Your task to perform on an android device: search for starred emails in the gmail app Image 0: 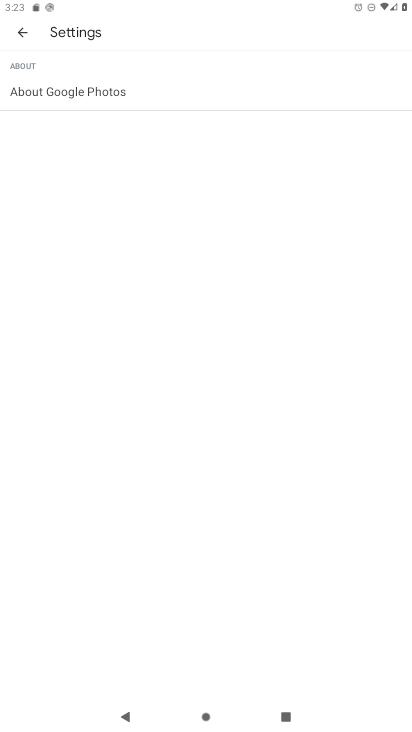
Step 0: press home button
Your task to perform on an android device: search for starred emails in the gmail app Image 1: 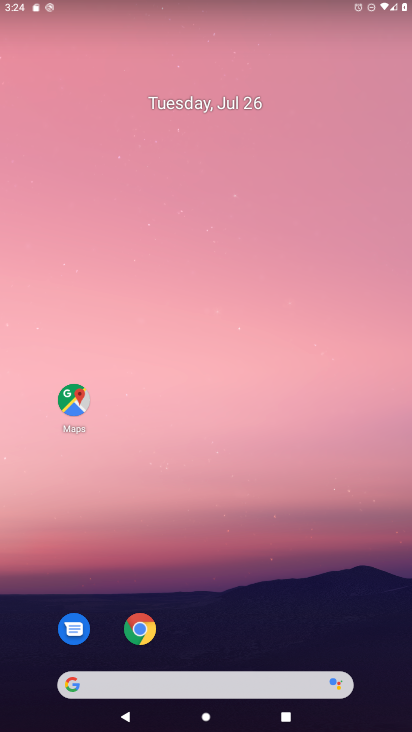
Step 1: drag from (213, 620) to (221, 333)
Your task to perform on an android device: search for starred emails in the gmail app Image 2: 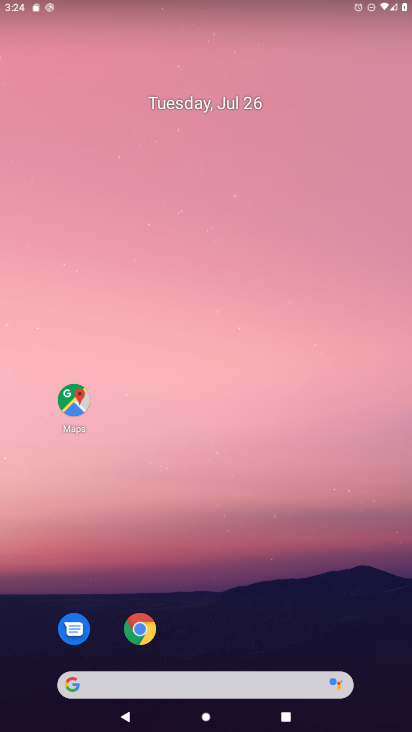
Step 2: drag from (196, 628) to (237, 207)
Your task to perform on an android device: search for starred emails in the gmail app Image 3: 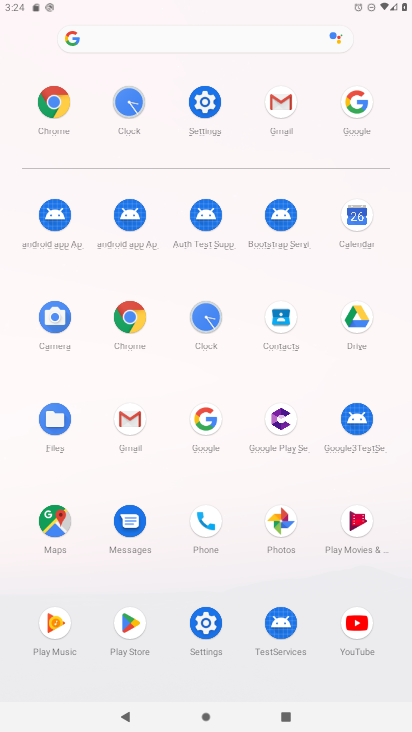
Step 3: click (283, 127)
Your task to perform on an android device: search for starred emails in the gmail app Image 4: 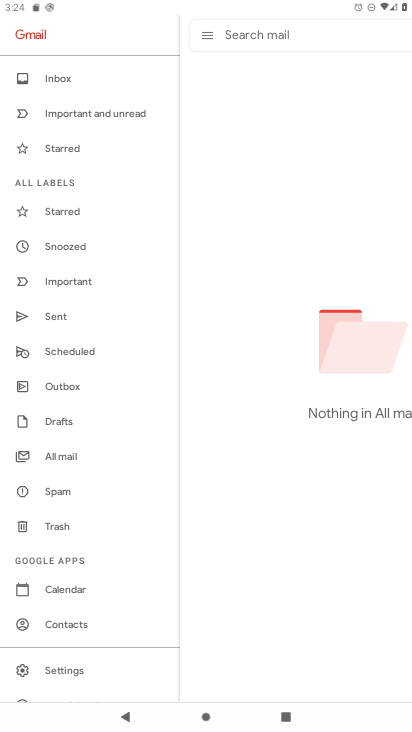
Step 4: click (91, 211)
Your task to perform on an android device: search for starred emails in the gmail app Image 5: 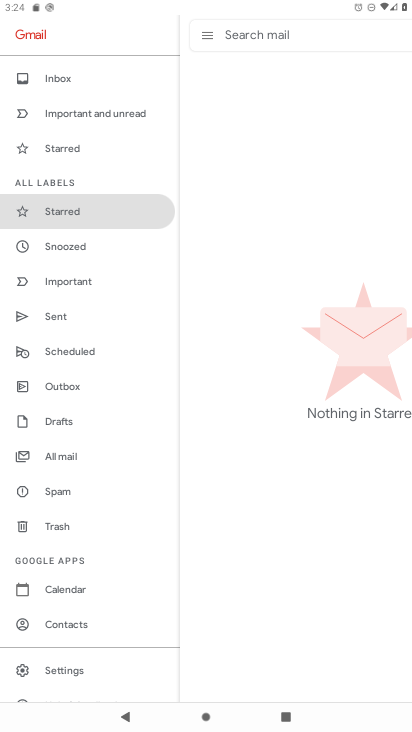
Step 5: task complete